Your task to perform on an android device: set default search engine in the chrome app Image 0: 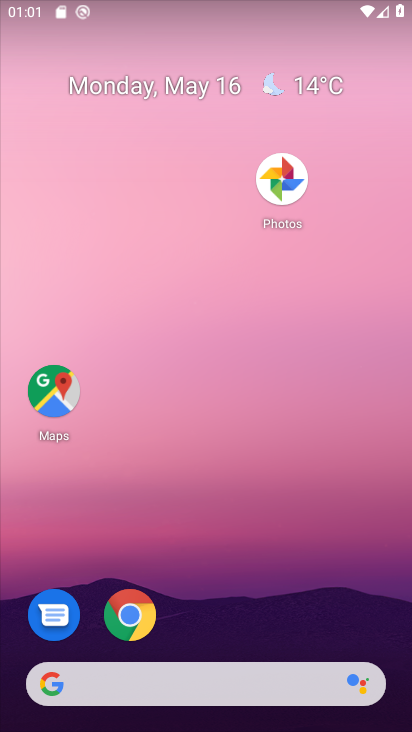
Step 0: drag from (321, 571) to (259, 189)
Your task to perform on an android device: set default search engine in the chrome app Image 1: 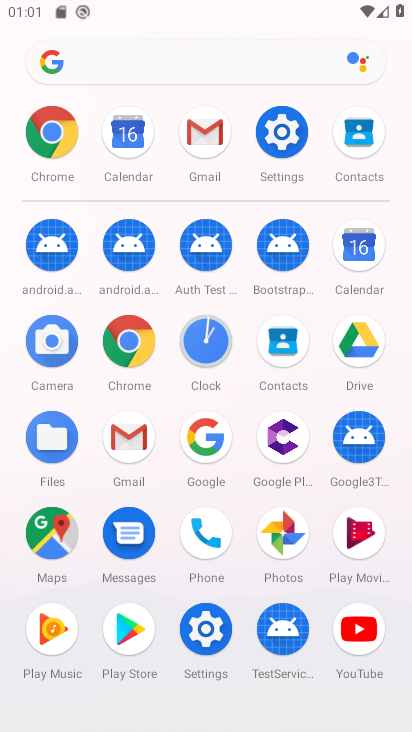
Step 1: click (143, 338)
Your task to perform on an android device: set default search engine in the chrome app Image 2: 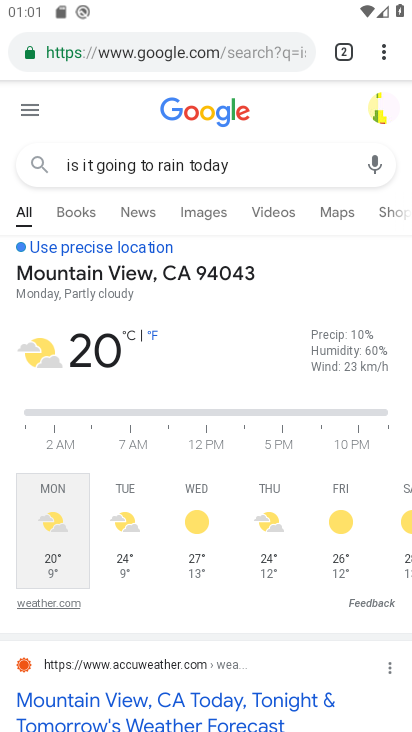
Step 2: drag from (384, 61) to (223, 627)
Your task to perform on an android device: set default search engine in the chrome app Image 3: 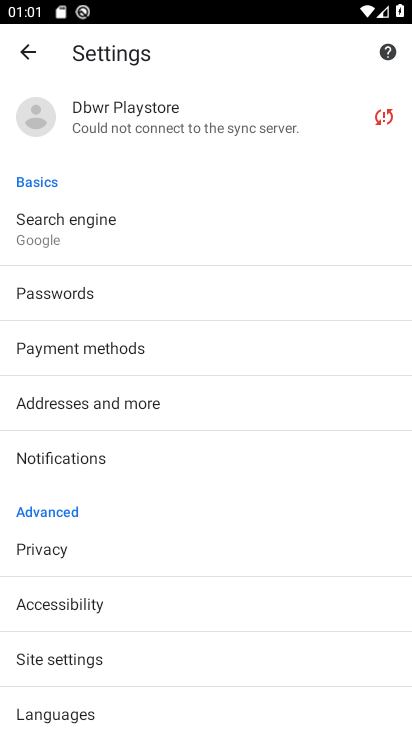
Step 3: click (81, 234)
Your task to perform on an android device: set default search engine in the chrome app Image 4: 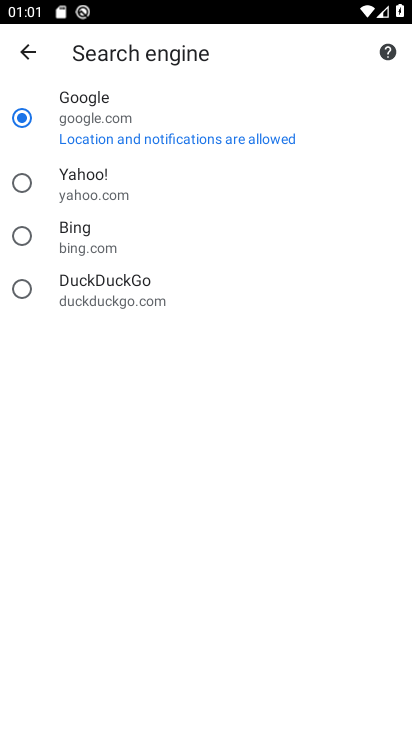
Step 4: click (25, 190)
Your task to perform on an android device: set default search engine in the chrome app Image 5: 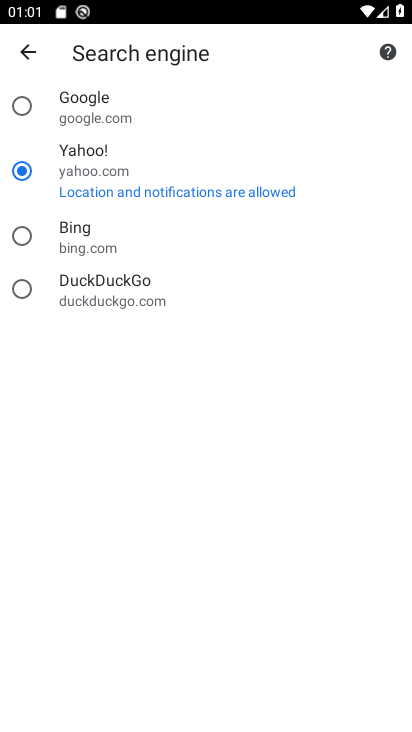
Step 5: task complete